Your task to perform on an android device: turn on translation in the chrome app Image 0: 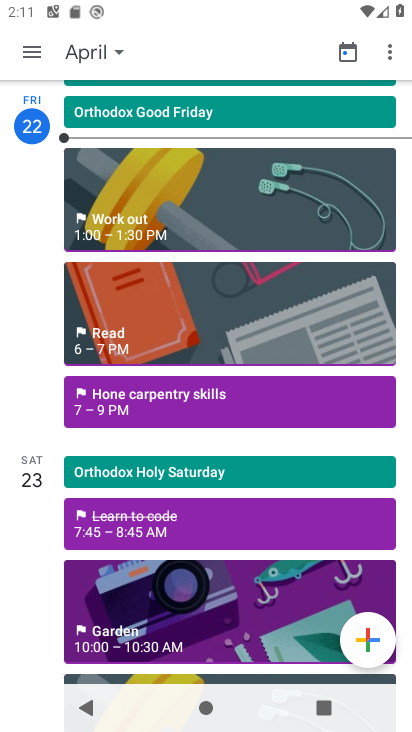
Step 0: press home button
Your task to perform on an android device: turn on translation in the chrome app Image 1: 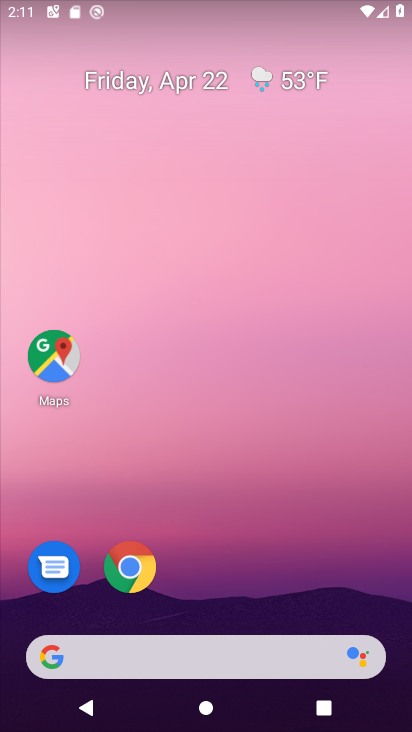
Step 1: click (123, 571)
Your task to perform on an android device: turn on translation in the chrome app Image 2: 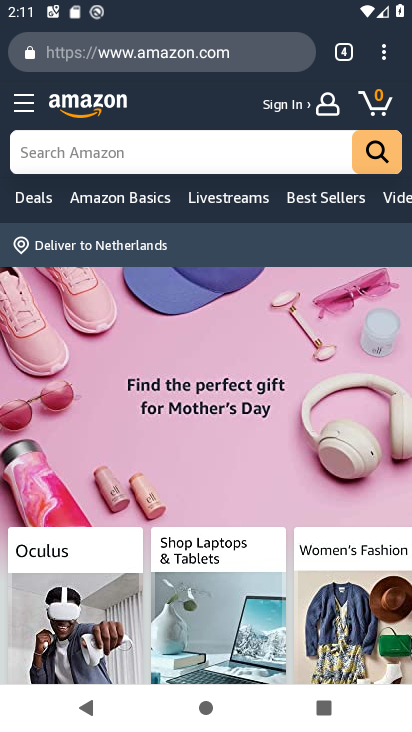
Step 2: drag from (385, 52) to (309, 590)
Your task to perform on an android device: turn on translation in the chrome app Image 3: 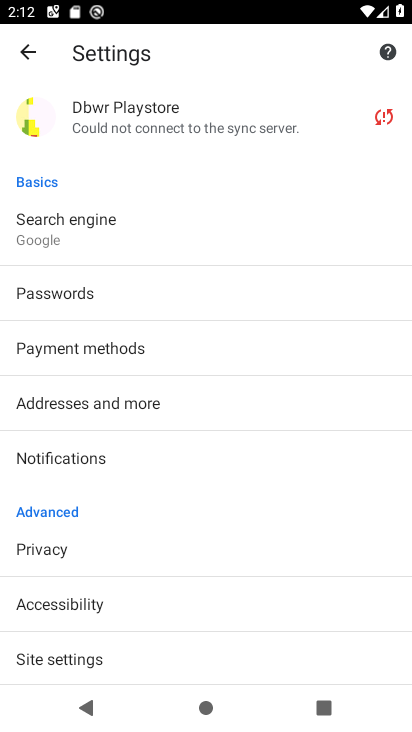
Step 3: drag from (228, 546) to (237, 358)
Your task to perform on an android device: turn on translation in the chrome app Image 4: 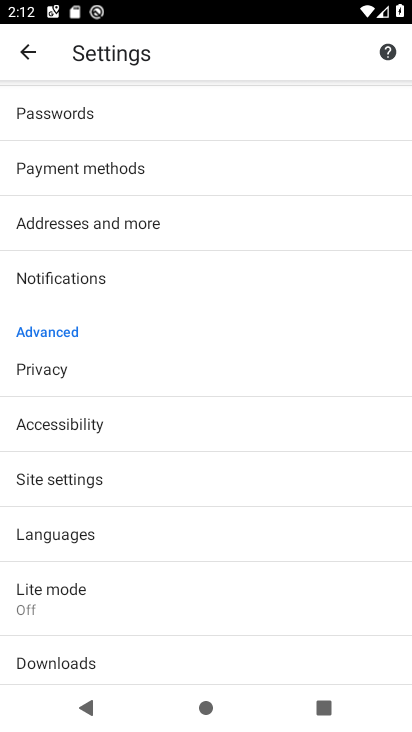
Step 4: click (168, 531)
Your task to perform on an android device: turn on translation in the chrome app Image 5: 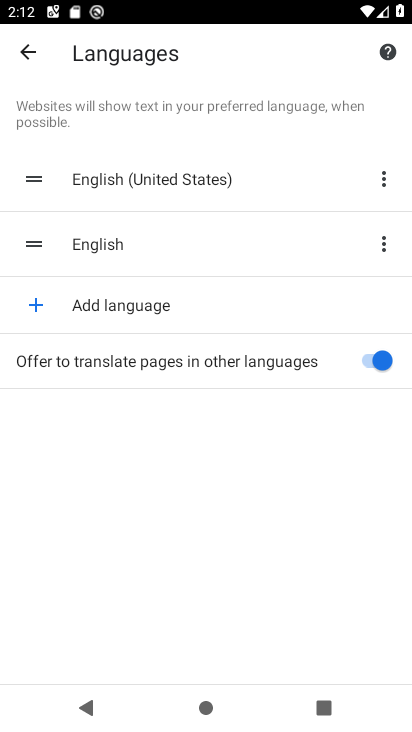
Step 5: task complete